Your task to perform on an android device: turn on data saver in the chrome app Image 0: 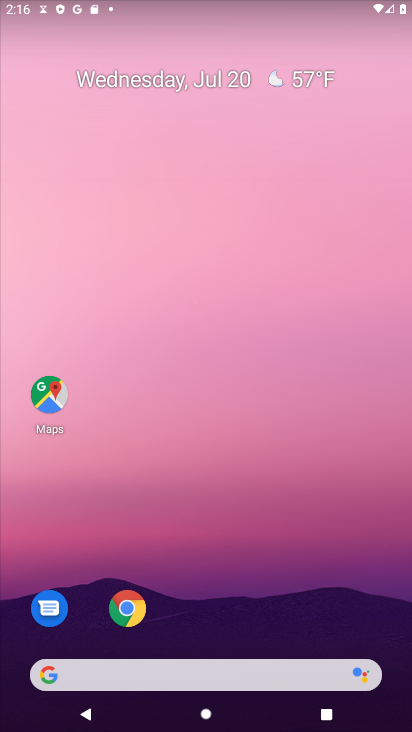
Step 0: click (127, 611)
Your task to perform on an android device: turn on data saver in the chrome app Image 1: 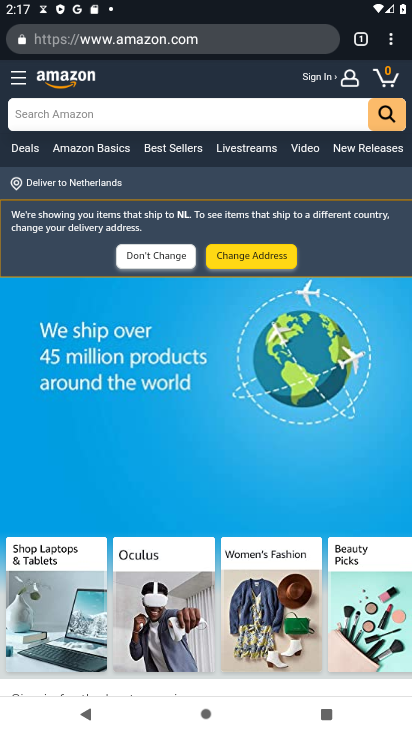
Step 1: click (391, 49)
Your task to perform on an android device: turn on data saver in the chrome app Image 2: 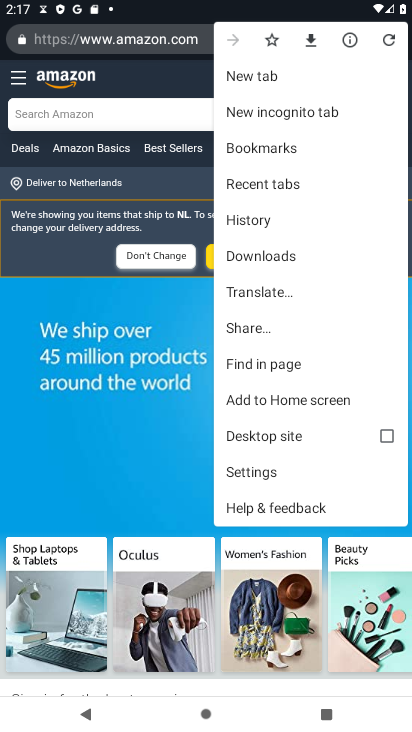
Step 2: click (250, 474)
Your task to perform on an android device: turn on data saver in the chrome app Image 3: 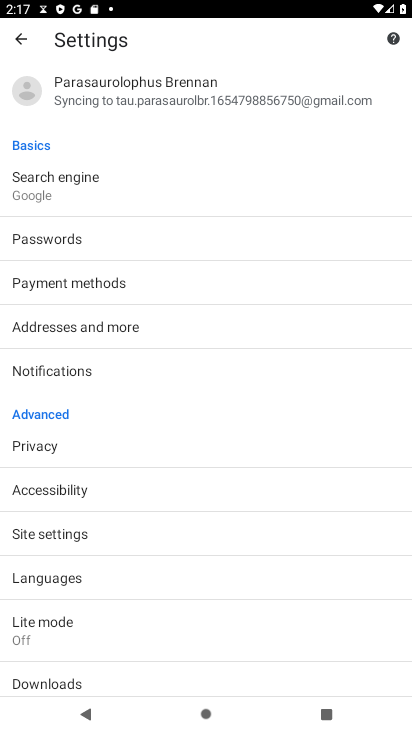
Step 3: click (55, 628)
Your task to perform on an android device: turn on data saver in the chrome app Image 4: 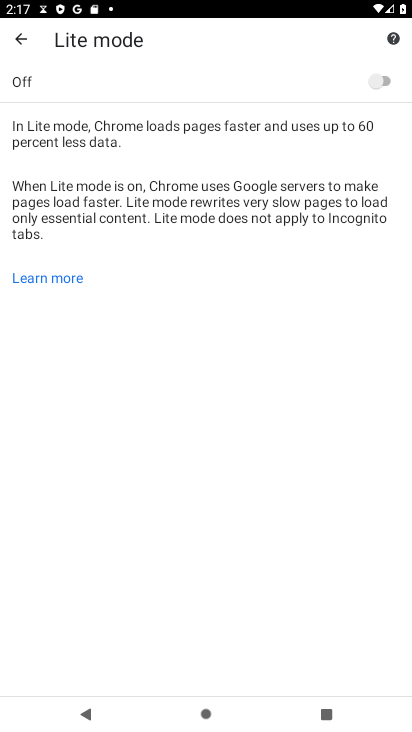
Step 4: click (382, 76)
Your task to perform on an android device: turn on data saver in the chrome app Image 5: 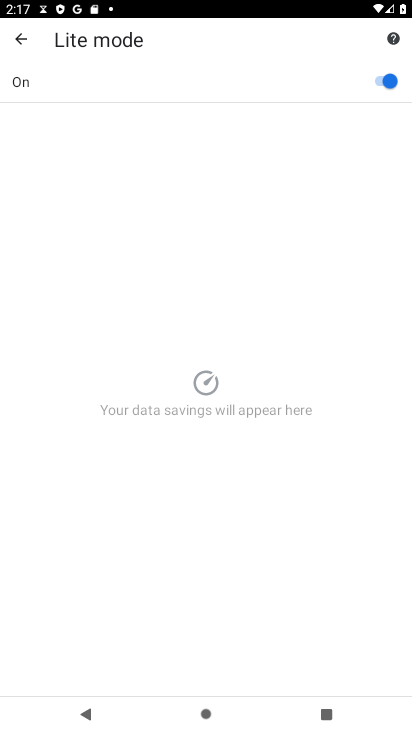
Step 5: task complete